Your task to perform on an android device: toggle wifi Image 0: 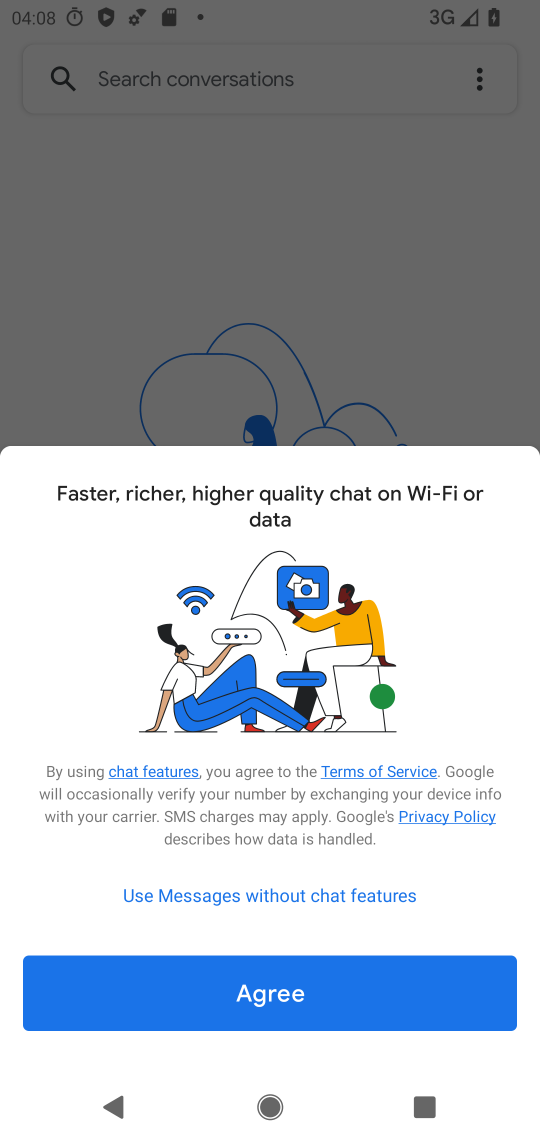
Step 0: press home button
Your task to perform on an android device: toggle wifi Image 1: 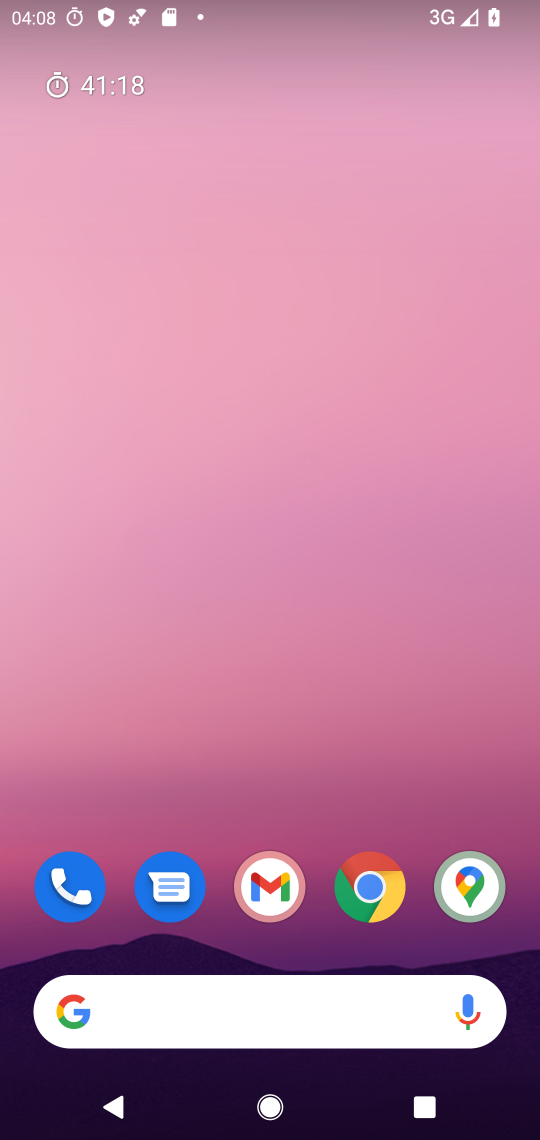
Step 1: drag from (440, 793) to (430, 315)
Your task to perform on an android device: toggle wifi Image 2: 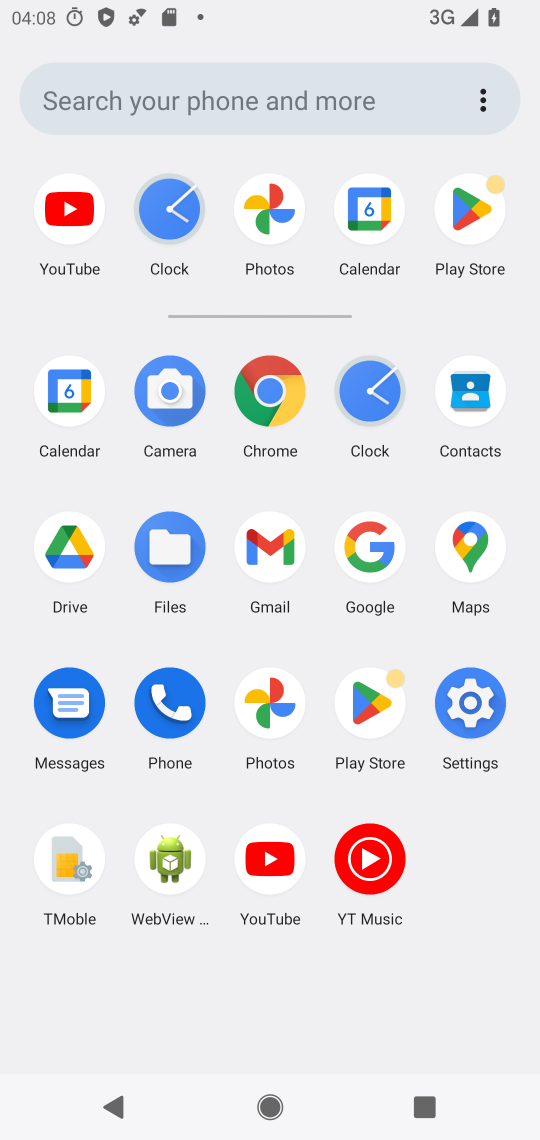
Step 2: click (469, 703)
Your task to perform on an android device: toggle wifi Image 3: 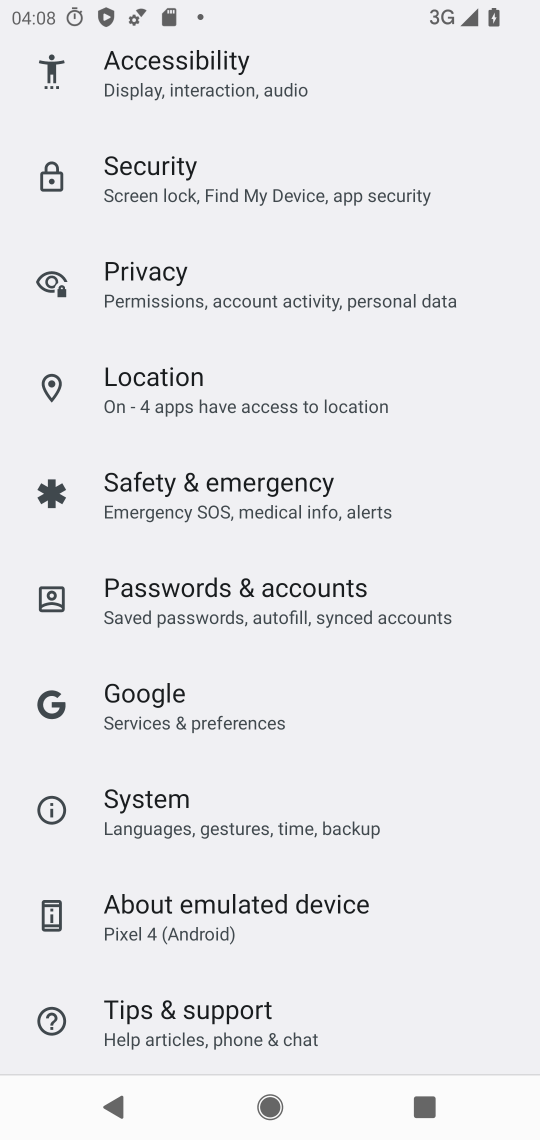
Step 3: drag from (469, 445) to (476, 583)
Your task to perform on an android device: toggle wifi Image 4: 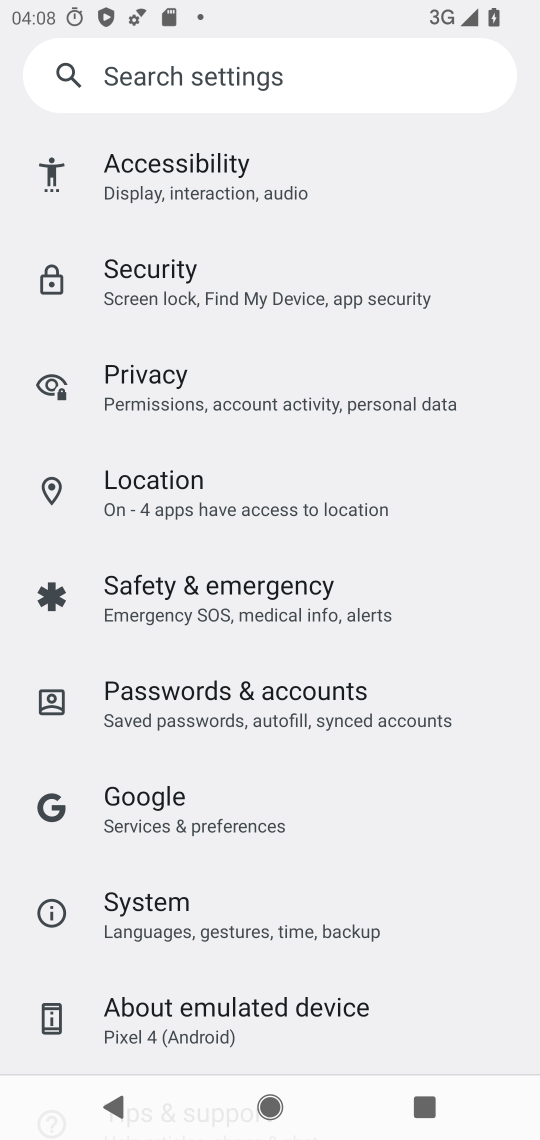
Step 4: drag from (522, 367) to (502, 542)
Your task to perform on an android device: toggle wifi Image 5: 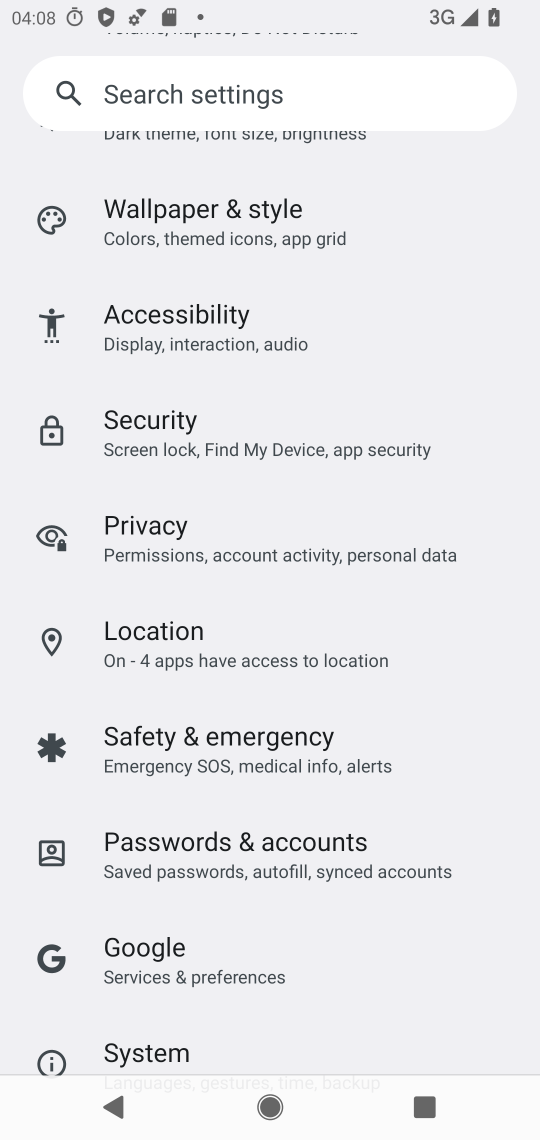
Step 5: drag from (474, 379) to (457, 542)
Your task to perform on an android device: toggle wifi Image 6: 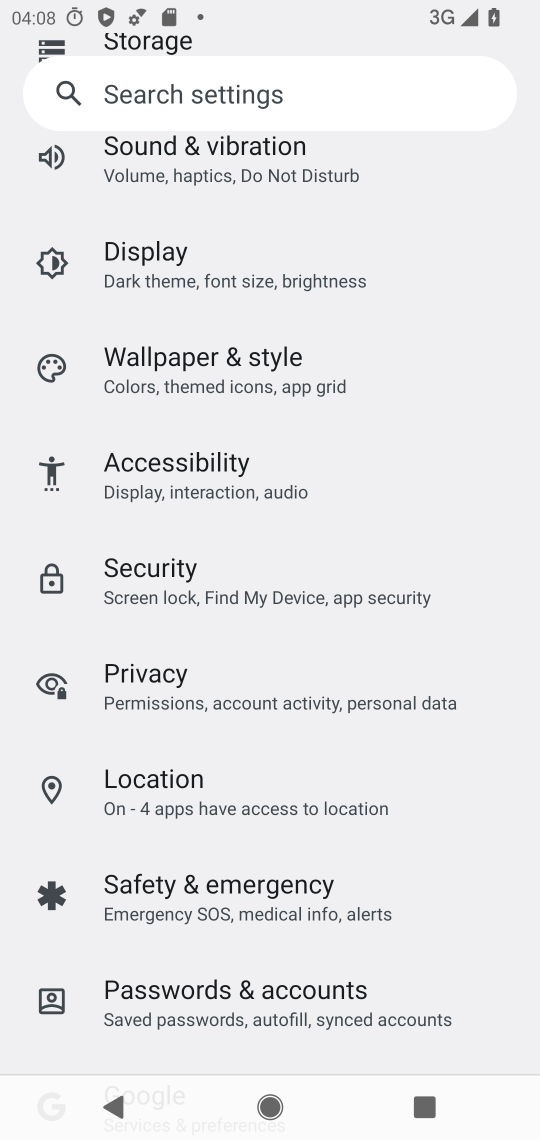
Step 6: drag from (426, 310) to (429, 481)
Your task to perform on an android device: toggle wifi Image 7: 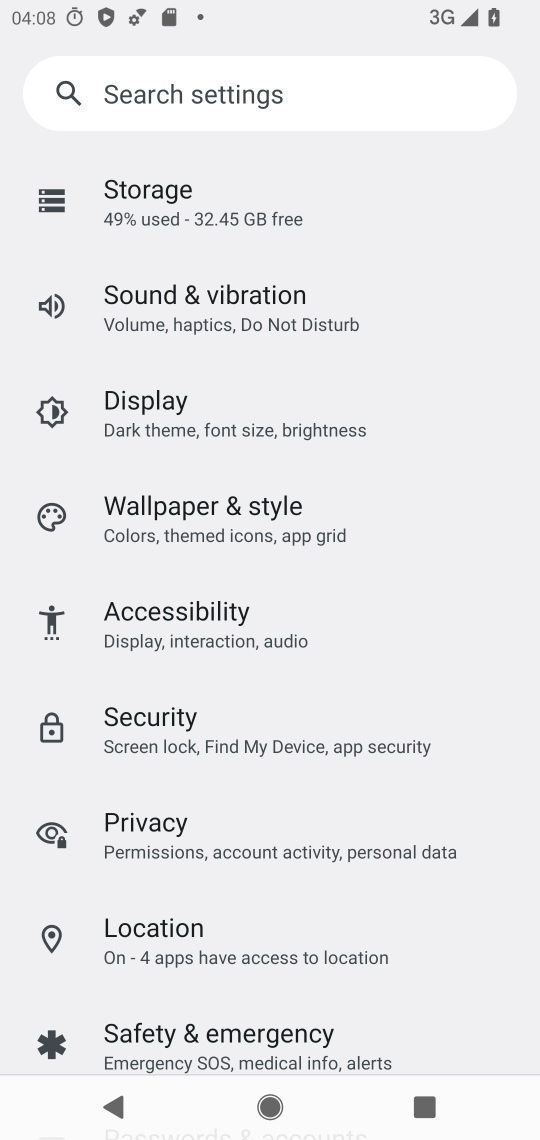
Step 7: drag from (438, 271) to (427, 451)
Your task to perform on an android device: toggle wifi Image 8: 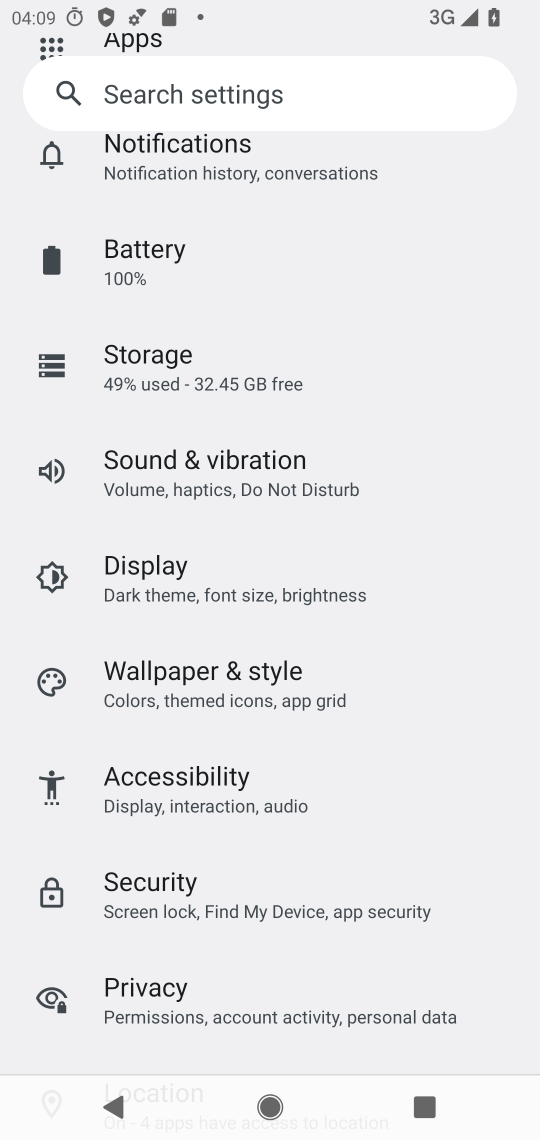
Step 8: drag from (446, 345) to (451, 579)
Your task to perform on an android device: toggle wifi Image 9: 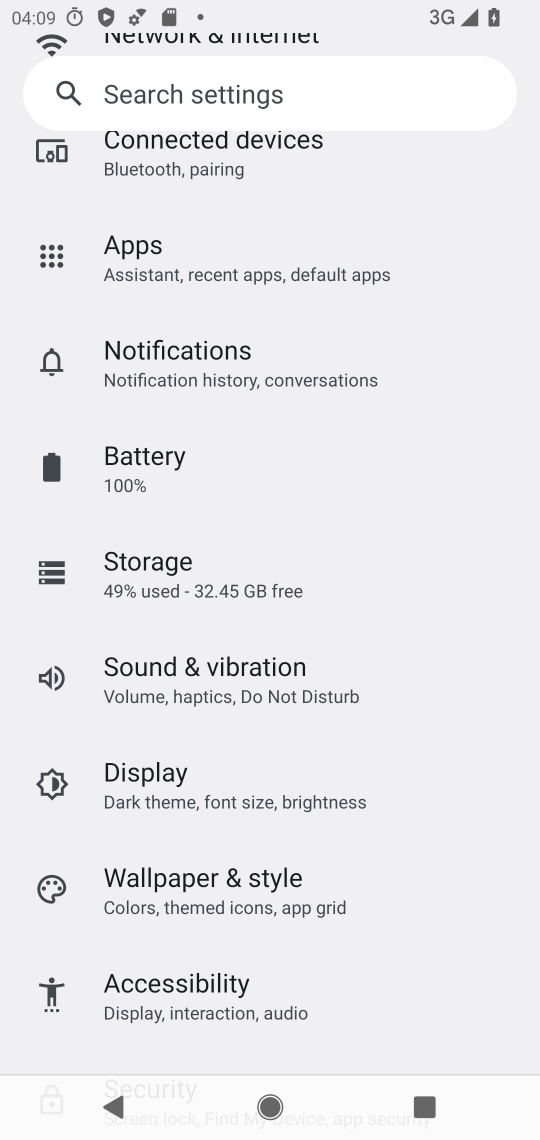
Step 9: drag from (461, 349) to (463, 561)
Your task to perform on an android device: toggle wifi Image 10: 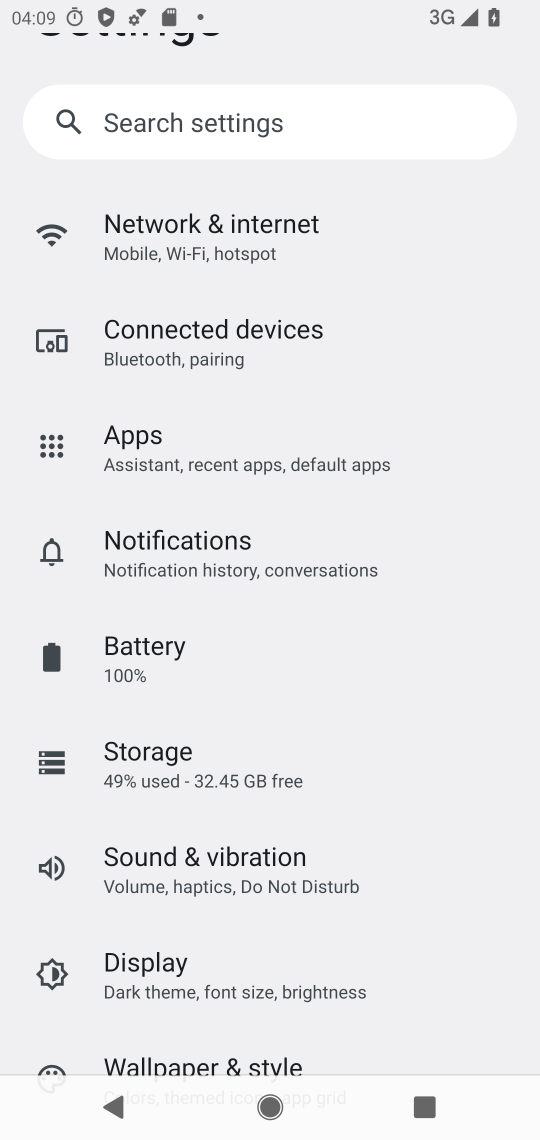
Step 10: drag from (461, 263) to (462, 531)
Your task to perform on an android device: toggle wifi Image 11: 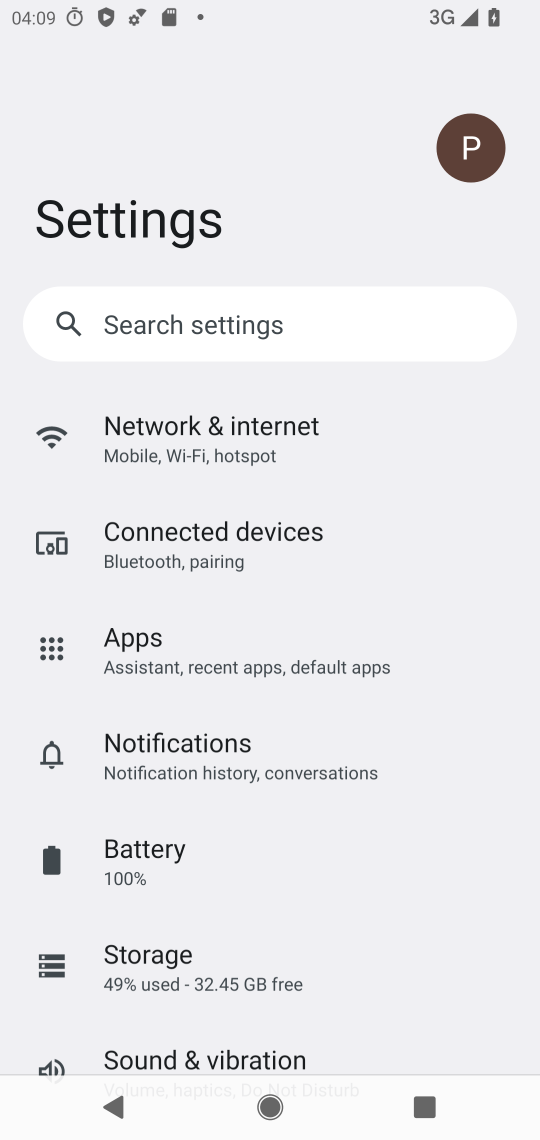
Step 11: click (319, 430)
Your task to perform on an android device: toggle wifi Image 12: 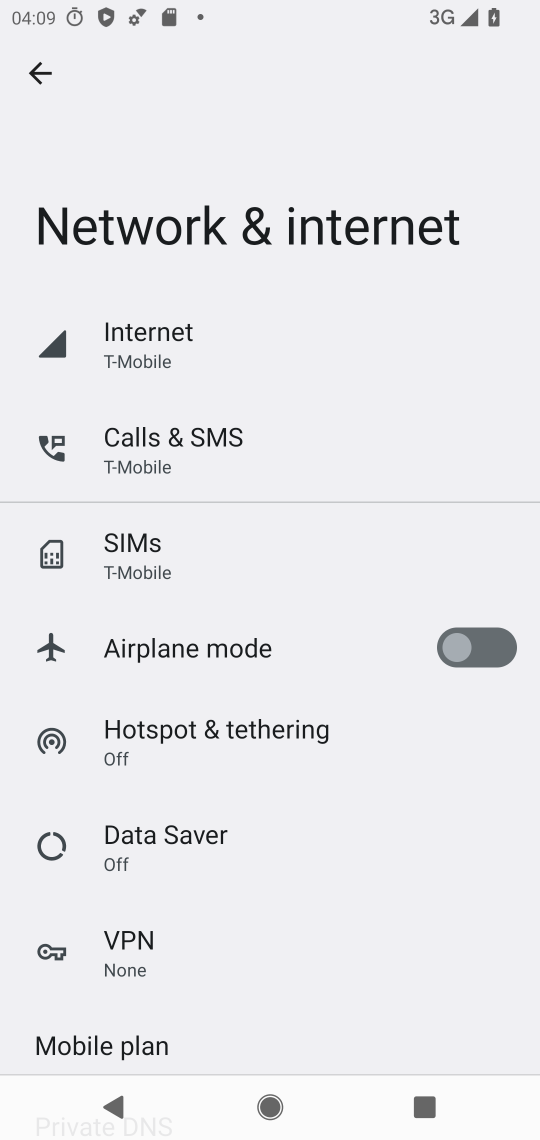
Step 12: click (184, 356)
Your task to perform on an android device: toggle wifi Image 13: 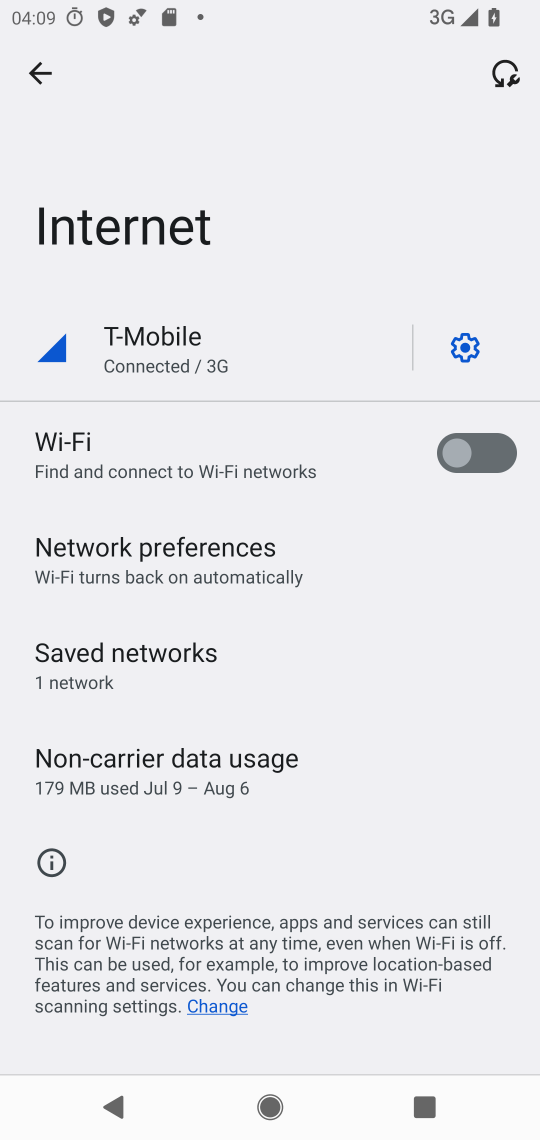
Step 13: click (471, 459)
Your task to perform on an android device: toggle wifi Image 14: 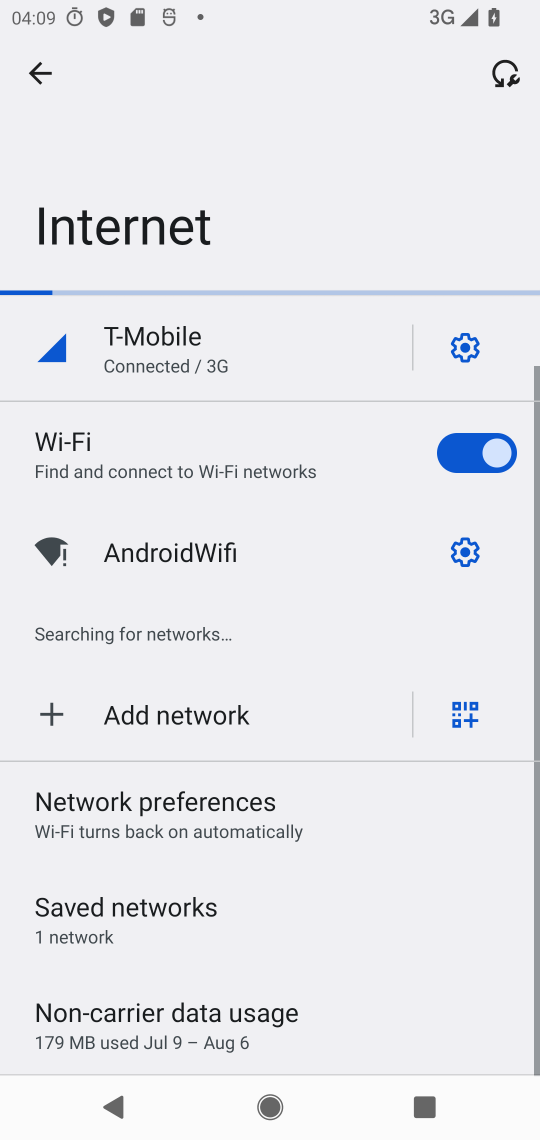
Step 14: task complete